Your task to perform on an android device: Search for seafood restaurants on Google Maps Image 0: 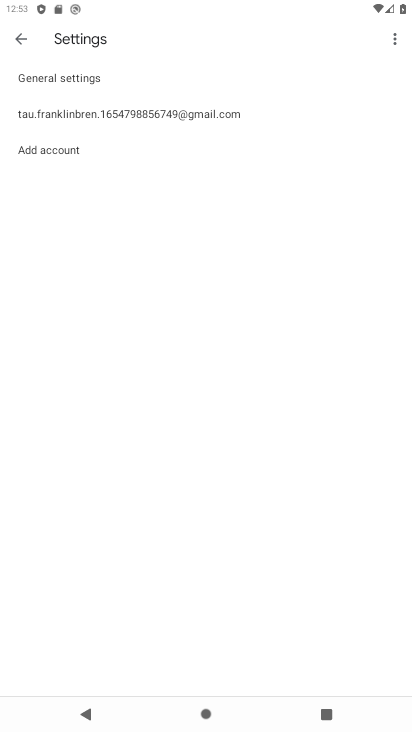
Step 0: press home button
Your task to perform on an android device: Search for seafood restaurants on Google Maps Image 1: 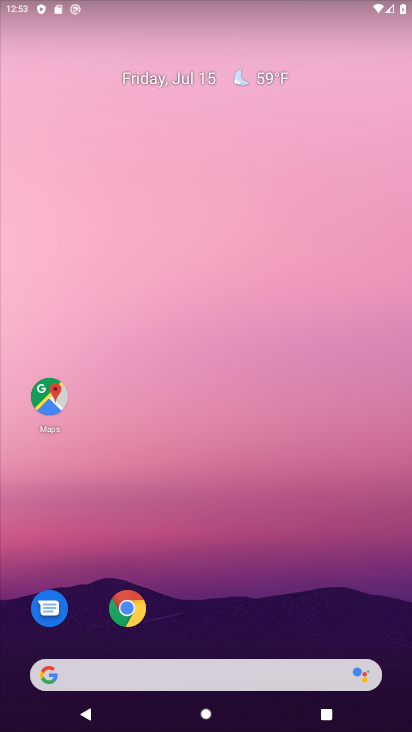
Step 1: drag from (206, 522) to (208, 314)
Your task to perform on an android device: Search for seafood restaurants on Google Maps Image 2: 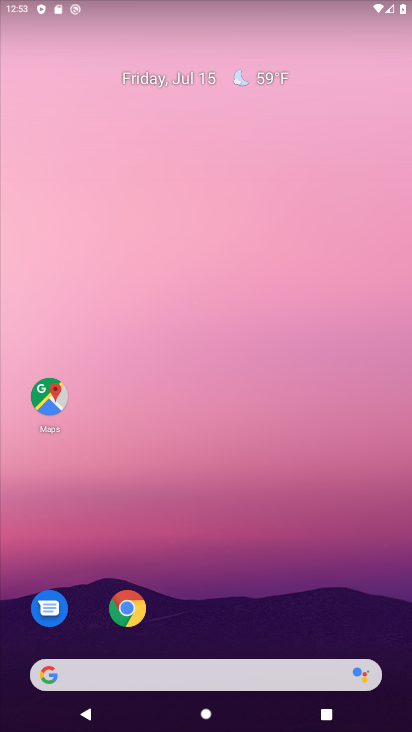
Step 2: drag from (236, 653) to (216, 313)
Your task to perform on an android device: Search for seafood restaurants on Google Maps Image 3: 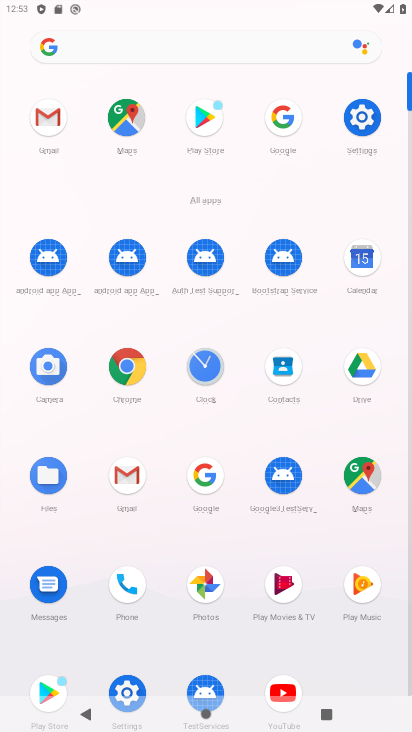
Step 3: click (367, 467)
Your task to perform on an android device: Search for seafood restaurants on Google Maps Image 4: 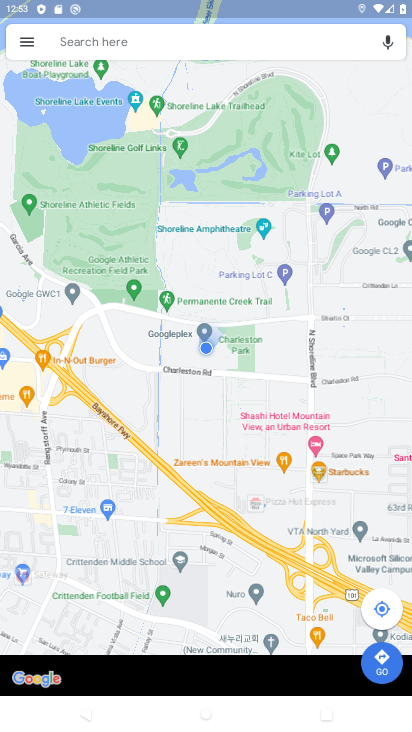
Step 4: click (128, 35)
Your task to perform on an android device: Search for seafood restaurants on Google Maps Image 5: 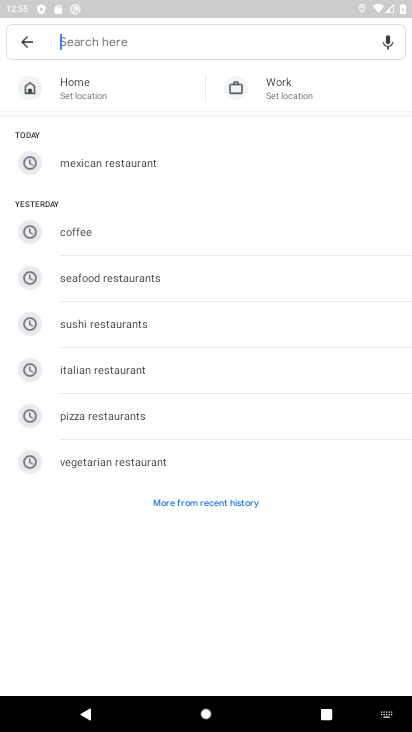
Step 5: click (79, 268)
Your task to perform on an android device: Search for seafood restaurants on Google Maps Image 6: 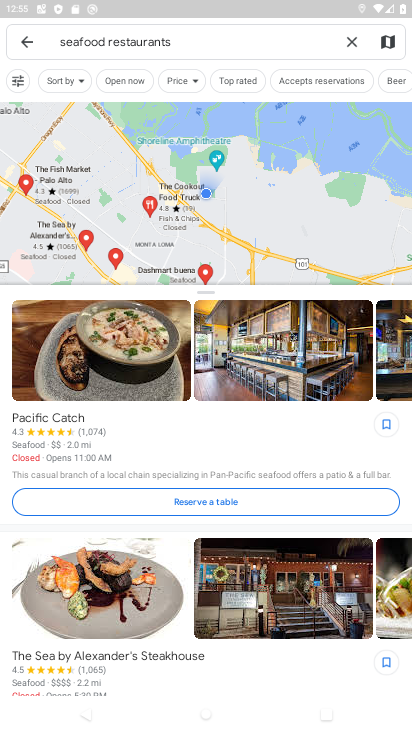
Step 6: task complete